Your task to perform on an android device: open app "Pandora - Music & Podcasts" (install if not already installed), go to login, and select forgot password Image 0: 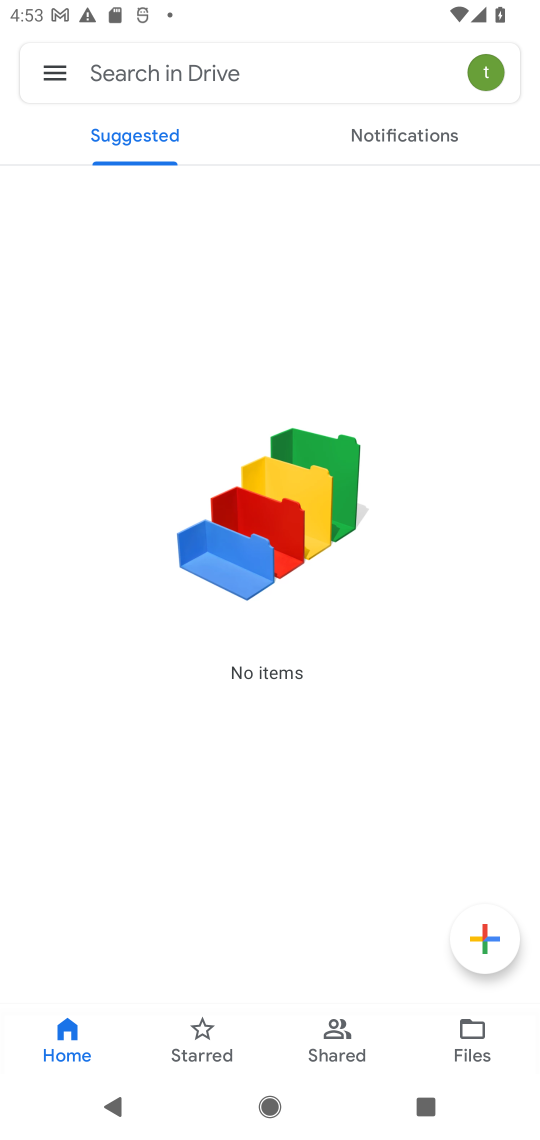
Step 0: press home button
Your task to perform on an android device: open app "Pandora - Music & Podcasts" (install if not already installed), go to login, and select forgot password Image 1: 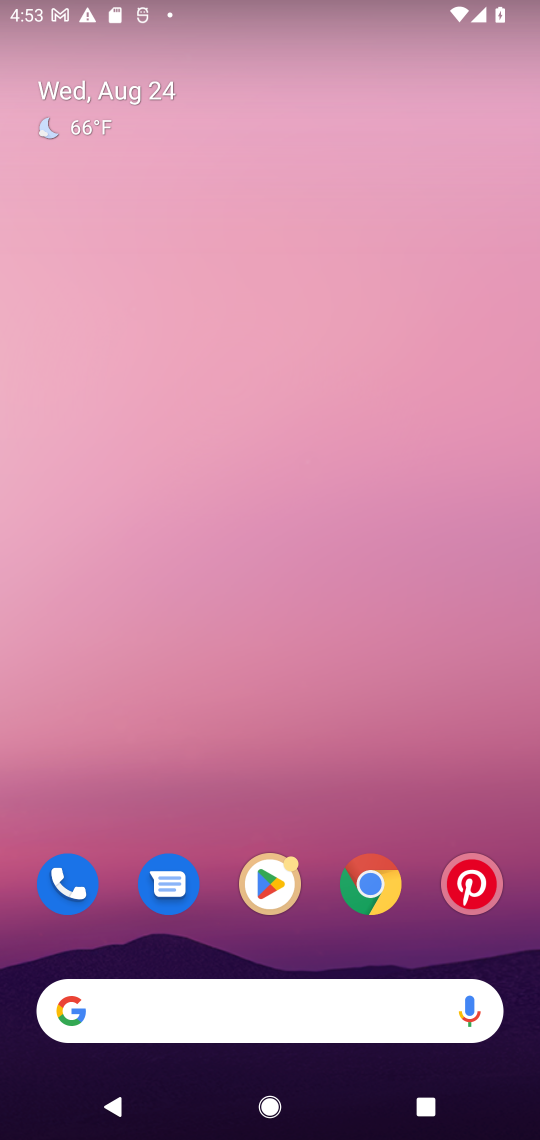
Step 1: click (264, 891)
Your task to perform on an android device: open app "Pandora - Music & Podcasts" (install if not already installed), go to login, and select forgot password Image 2: 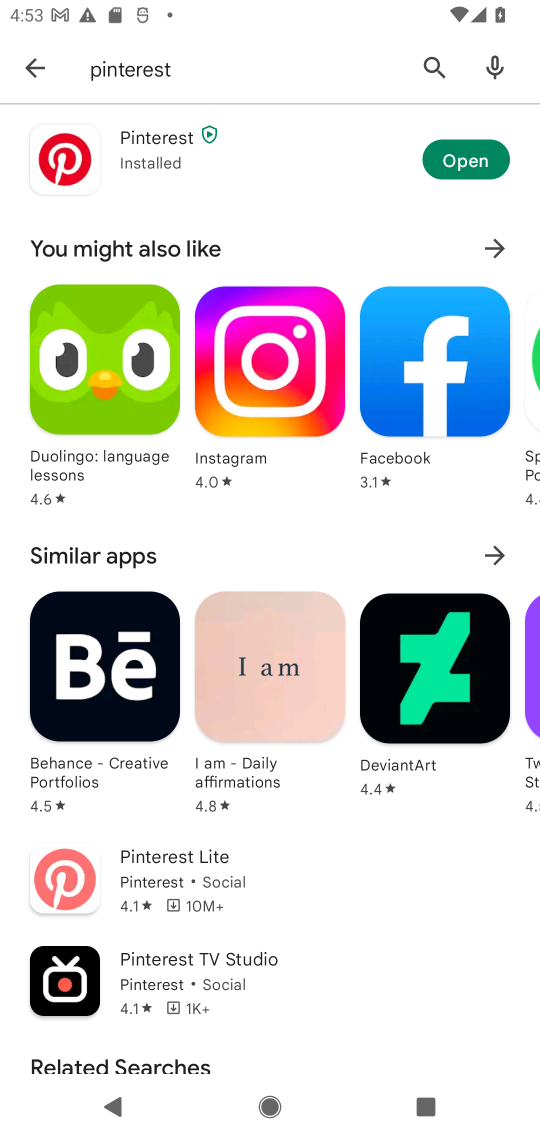
Step 2: click (27, 63)
Your task to perform on an android device: open app "Pandora - Music & Podcasts" (install if not already installed), go to login, and select forgot password Image 3: 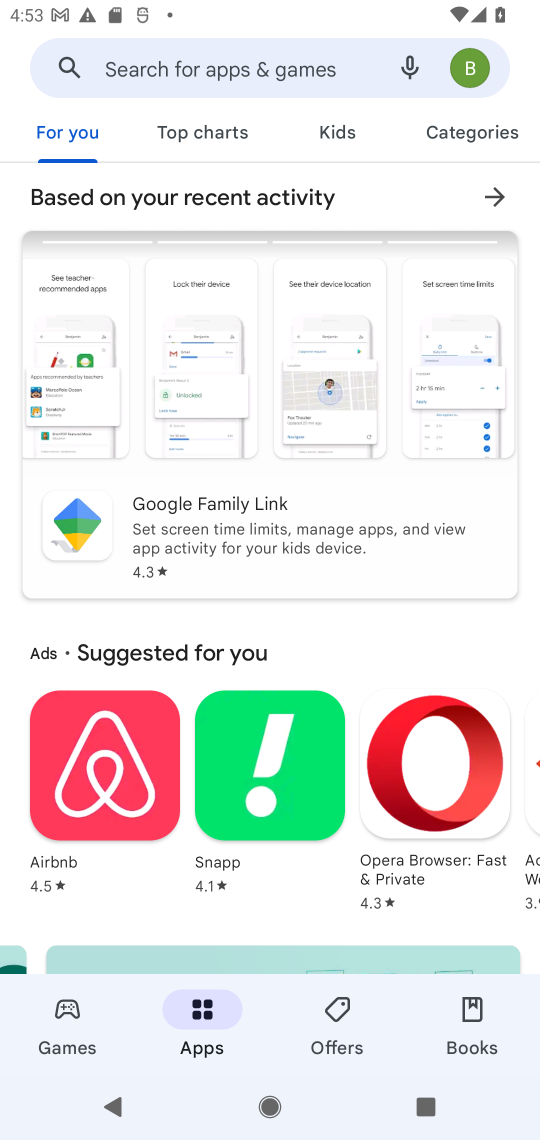
Step 3: click (194, 81)
Your task to perform on an android device: open app "Pandora - Music & Podcasts" (install if not already installed), go to login, and select forgot password Image 4: 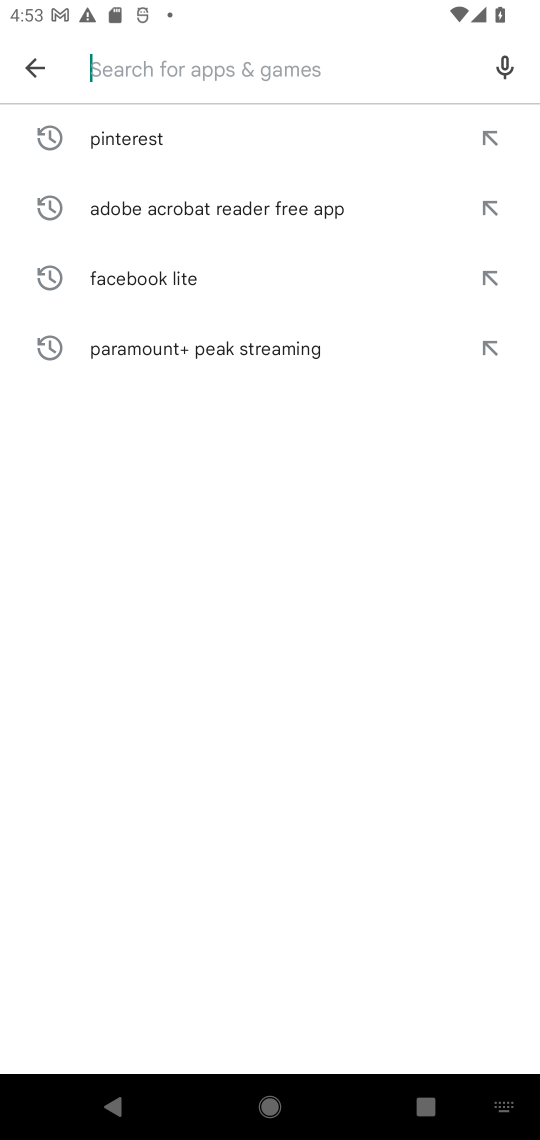
Step 4: type " Music & Podcasts"
Your task to perform on an android device: open app "Pandora - Music & Podcasts" (install if not already installed), go to login, and select forgot password Image 5: 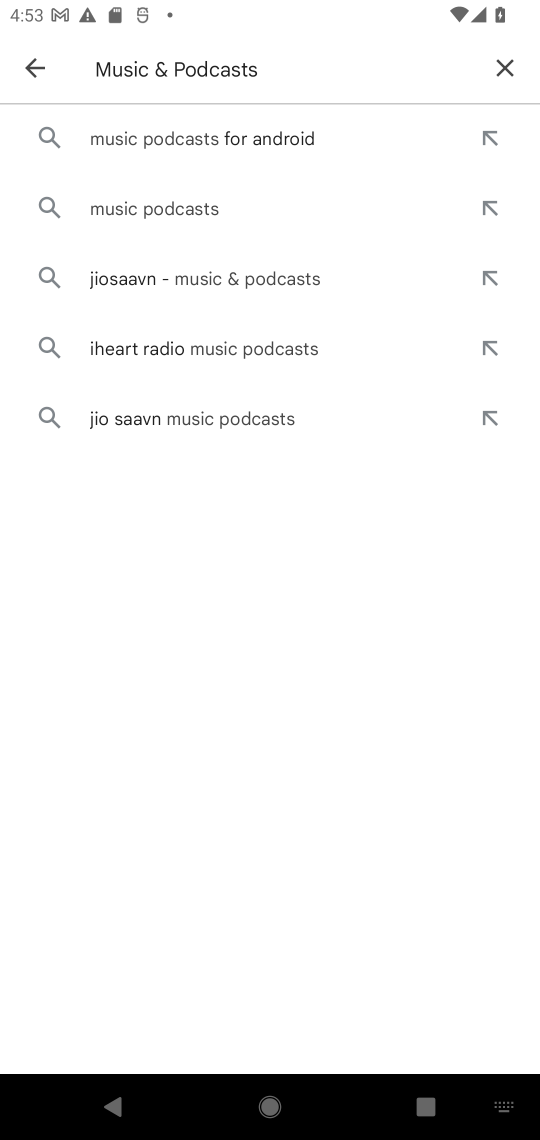
Step 5: click (235, 133)
Your task to perform on an android device: open app "Pandora - Music & Podcasts" (install if not already installed), go to login, and select forgot password Image 6: 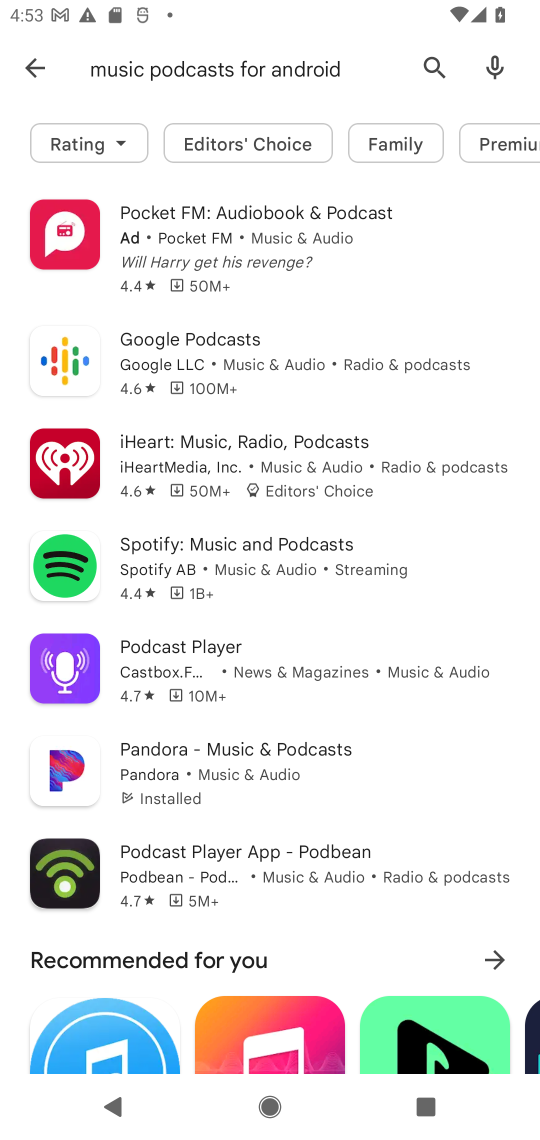
Step 6: task complete